Your task to perform on an android device: Open the calendar app, open the side menu, and click the "Day" option Image 0: 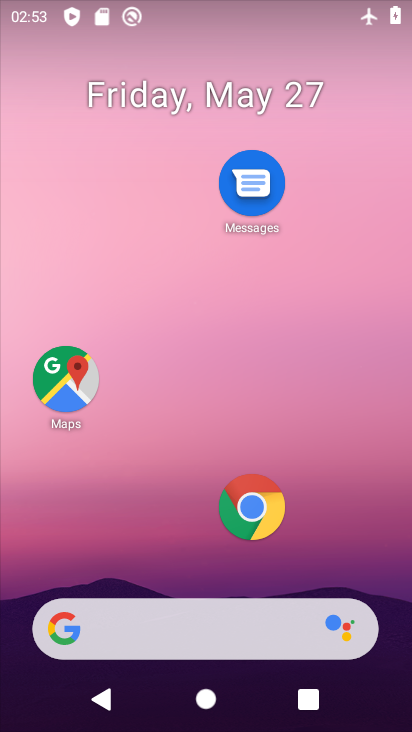
Step 0: click (358, 48)
Your task to perform on an android device: Open the calendar app, open the side menu, and click the "Day" option Image 1: 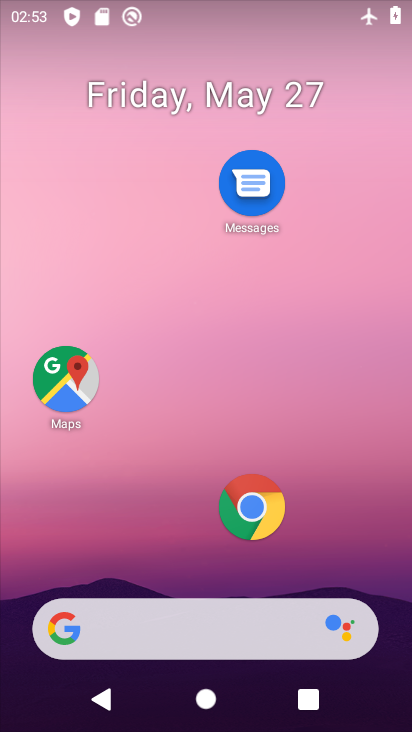
Step 1: drag from (223, 557) to (219, 376)
Your task to perform on an android device: Open the calendar app, open the side menu, and click the "Day" option Image 2: 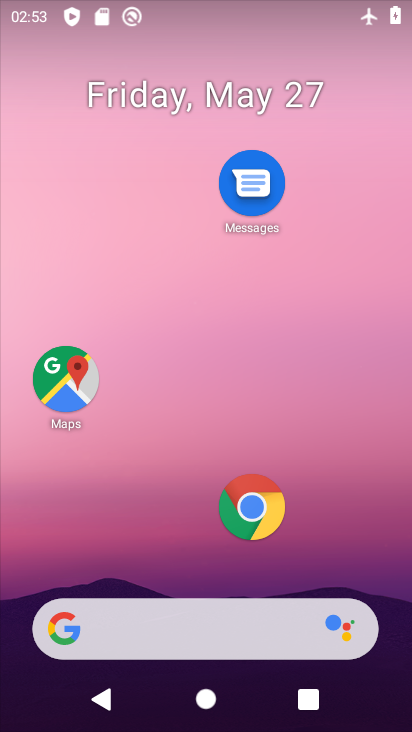
Step 2: drag from (224, 584) to (222, 28)
Your task to perform on an android device: Open the calendar app, open the side menu, and click the "Day" option Image 3: 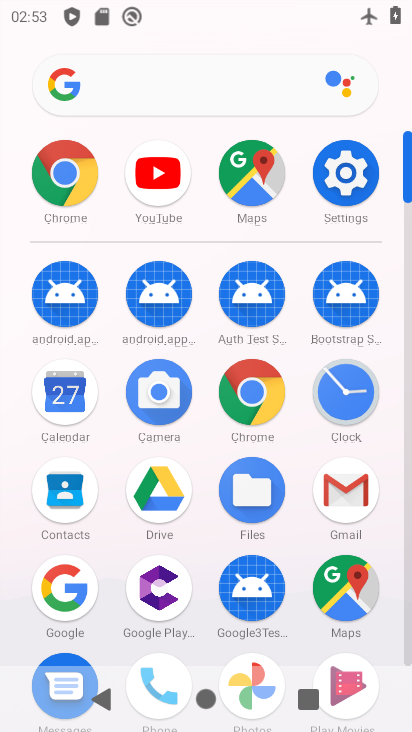
Step 3: click (69, 390)
Your task to perform on an android device: Open the calendar app, open the side menu, and click the "Day" option Image 4: 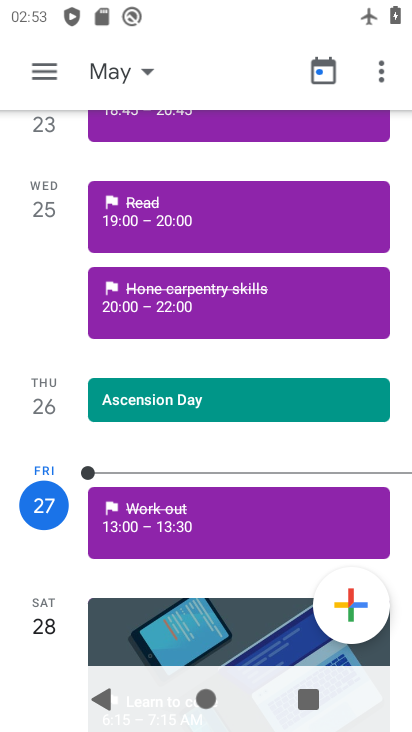
Step 4: click (43, 71)
Your task to perform on an android device: Open the calendar app, open the side menu, and click the "Day" option Image 5: 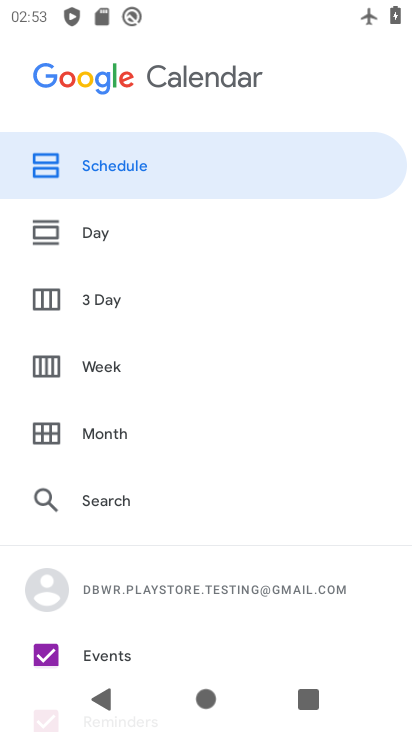
Step 5: click (132, 223)
Your task to perform on an android device: Open the calendar app, open the side menu, and click the "Day" option Image 6: 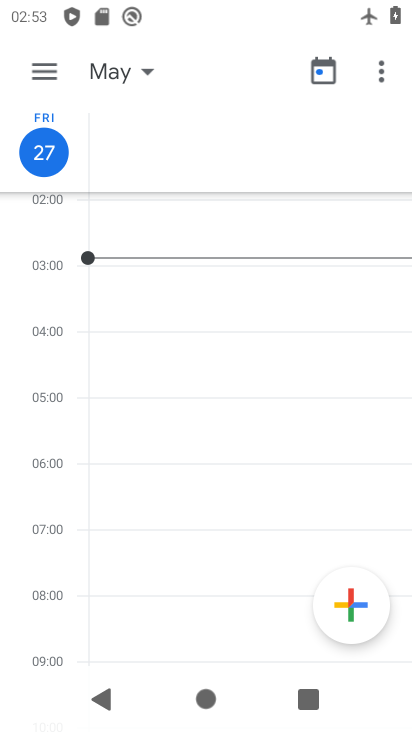
Step 6: task complete